Your task to perform on an android device: turn off smart reply in the gmail app Image 0: 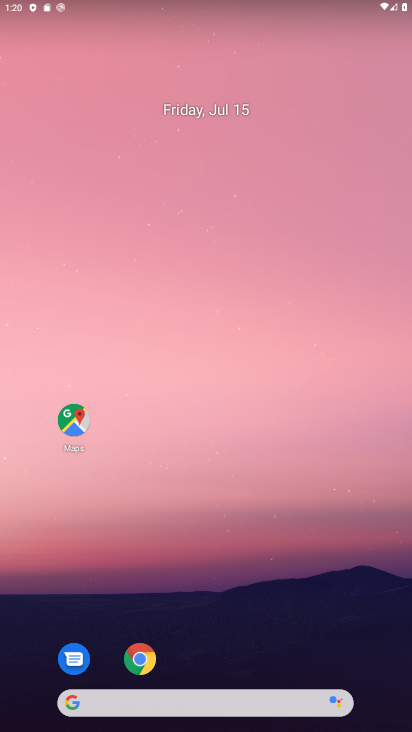
Step 0: drag from (180, 693) to (254, 268)
Your task to perform on an android device: turn off smart reply in the gmail app Image 1: 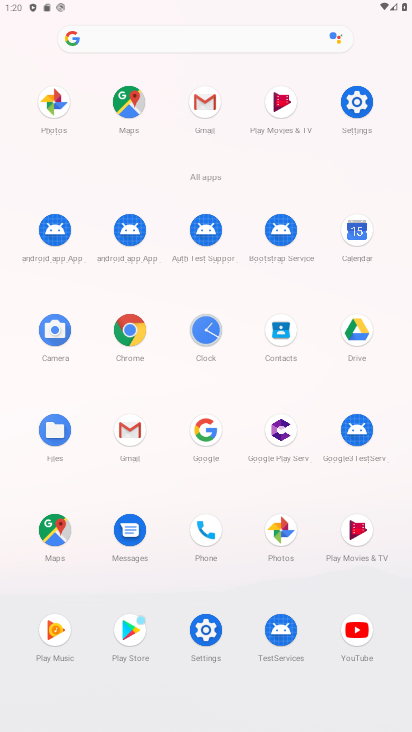
Step 1: click (143, 436)
Your task to perform on an android device: turn off smart reply in the gmail app Image 2: 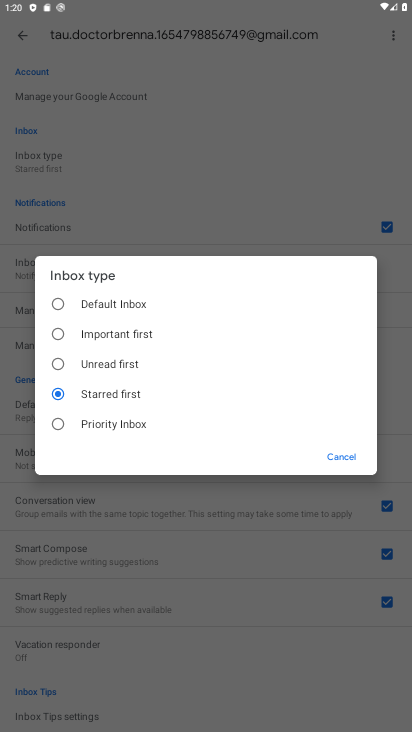
Step 2: press back button
Your task to perform on an android device: turn off smart reply in the gmail app Image 3: 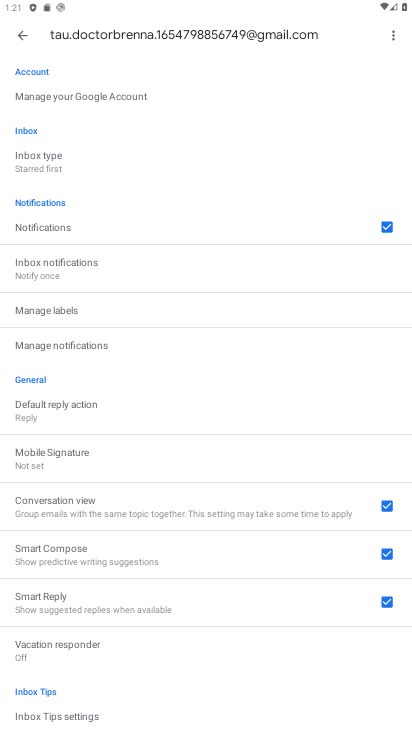
Step 3: drag from (187, 582) to (224, 425)
Your task to perform on an android device: turn off smart reply in the gmail app Image 4: 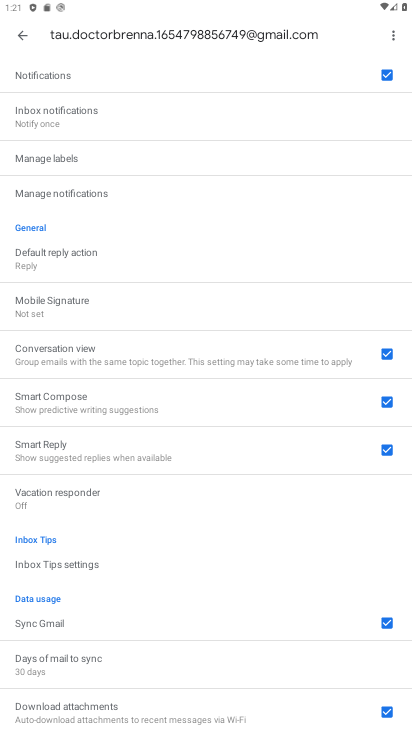
Step 4: click (376, 445)
Your task to perform on an android device: turn off smart reply in the gmail app Image 5: 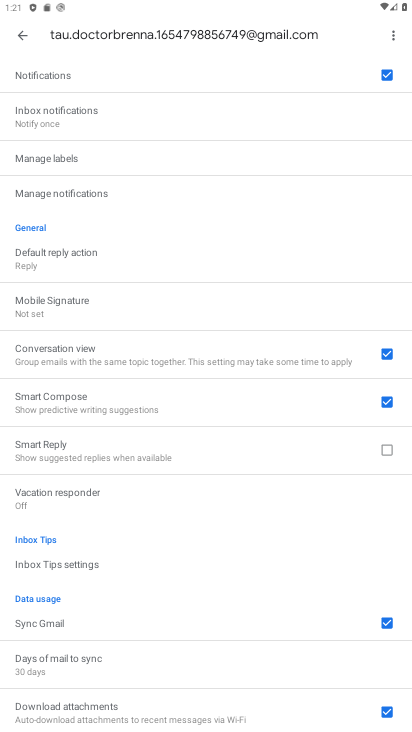
Step 5: task complete